Your task to perform on an android device: Search for flights from Buenos aires to Helsinki Image 0: 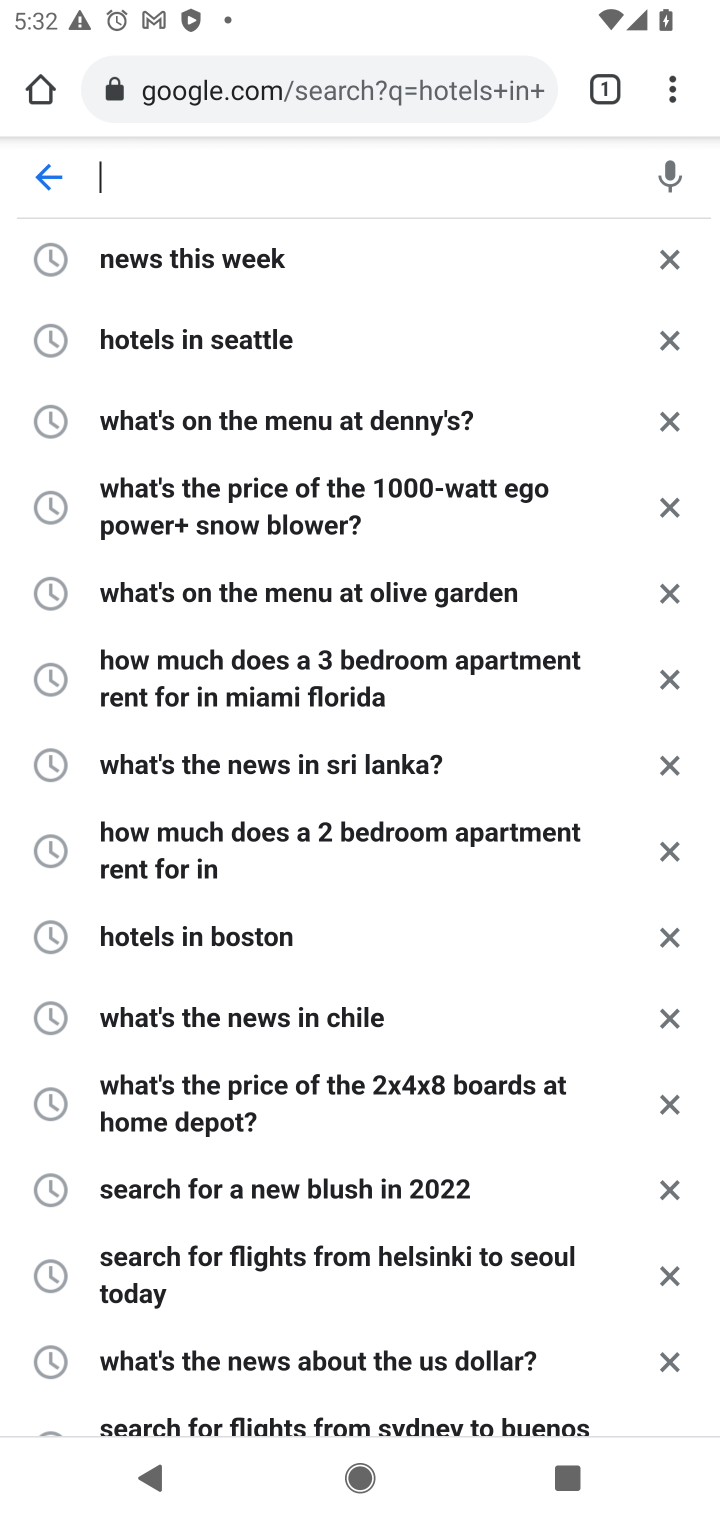
Step 0: type "flights from Buenos aires to Helsinki"
Your task to perform on an android device: Search for flights from Buenos aires to Helsinki Image 1: 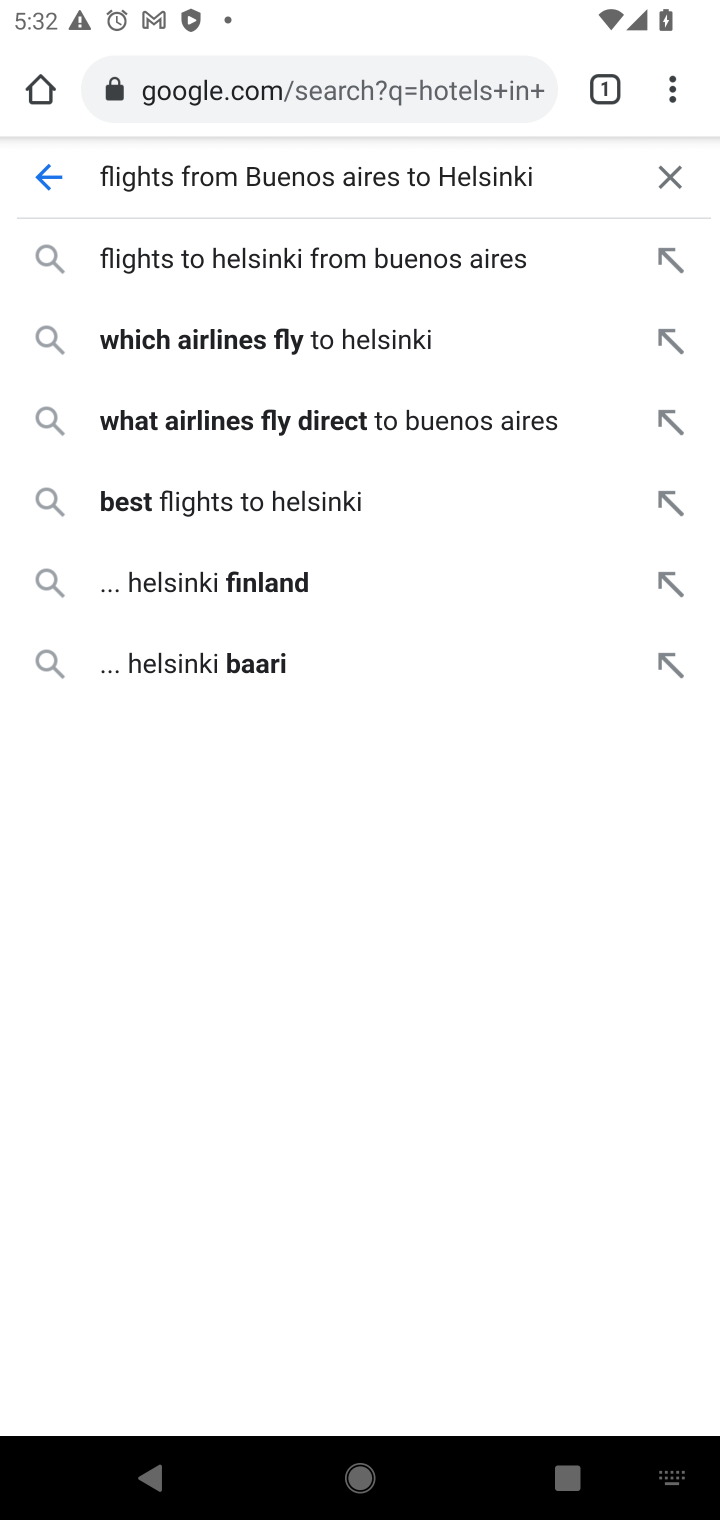
Step 1: press enter
Your task to perform on an android device: Search for flights from Buenos aires to Helsinki Image 2: 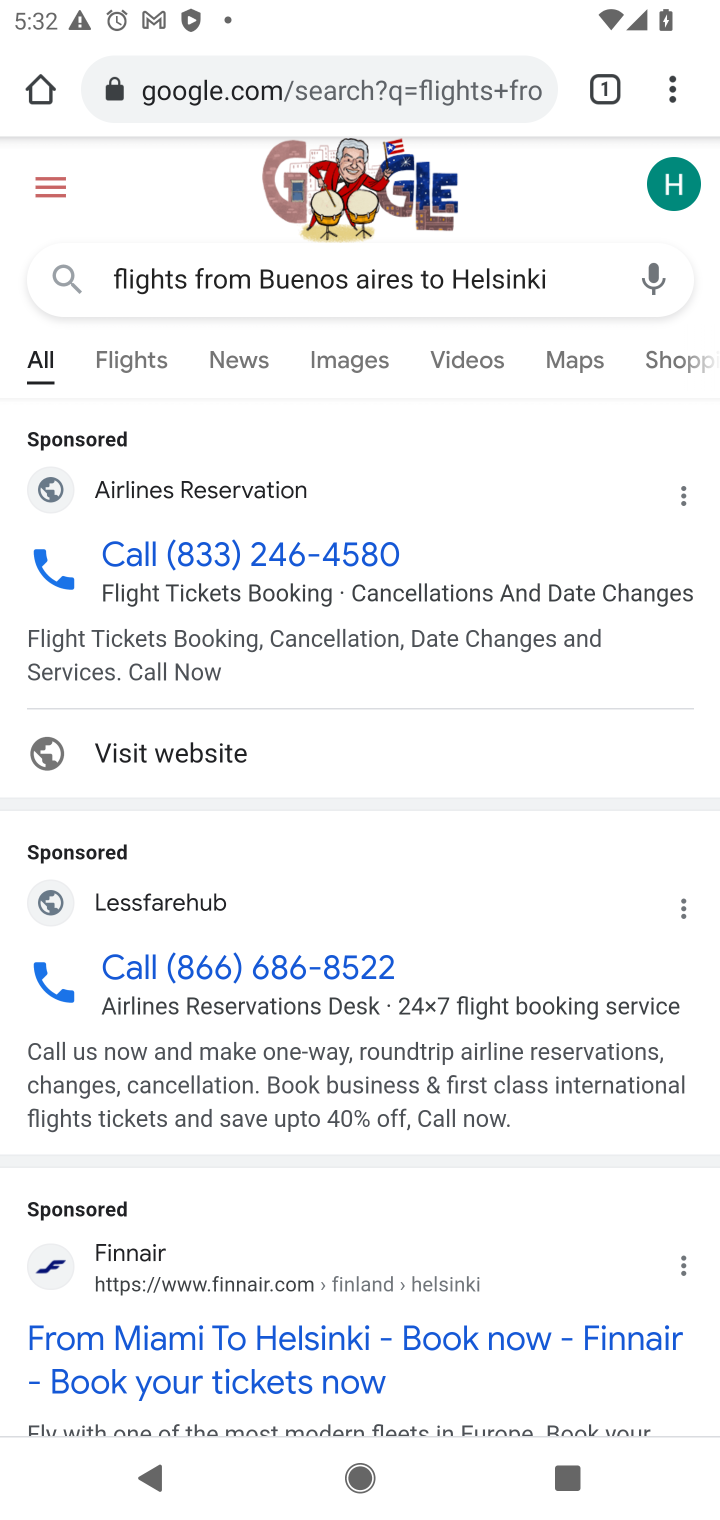
Step 2: task complete